Your task to perform on an android device: What is the news today? Image 0: 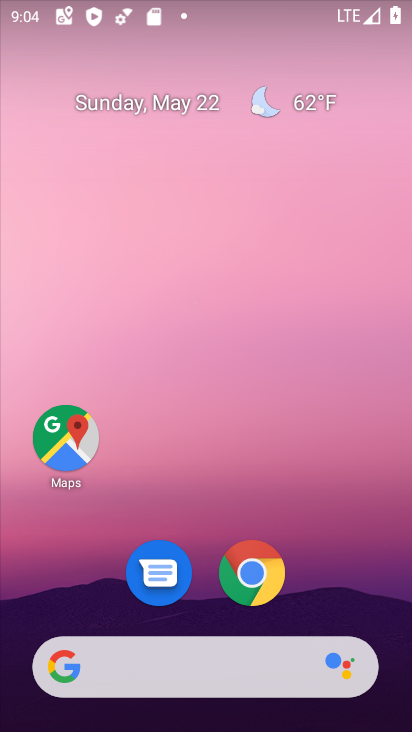
Step 0: drag from (218, 624) to (279, 26)
Your task to perform on an android device: What is the news today? Image 1: 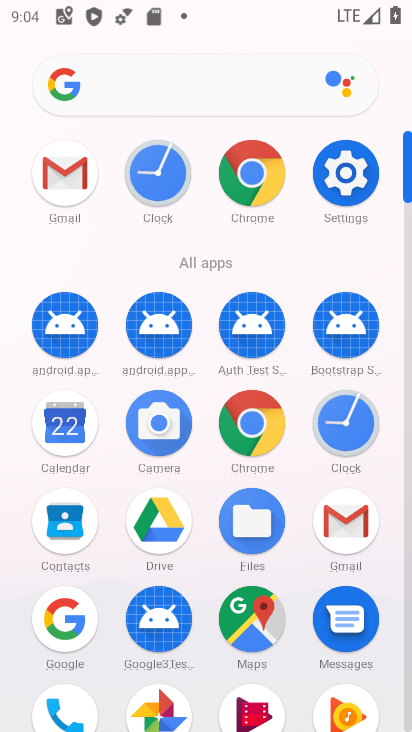
Step 1: click (268, 434)
Your task to perform on an android device: What is the news today? Image 2: 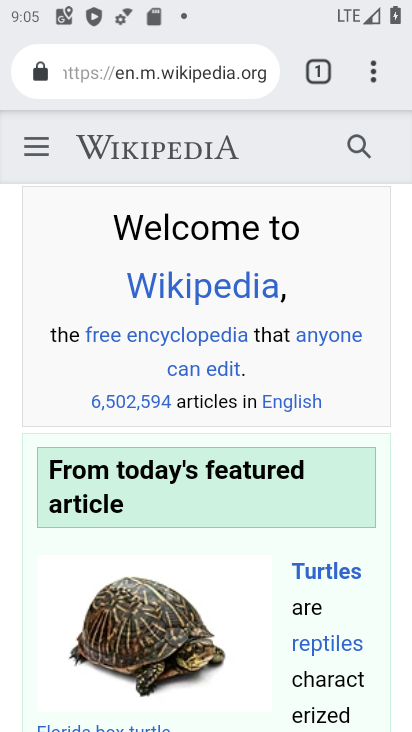
Step 2: click (245, 67)
Your task to perform on an android device: What is the news today? Image 3: 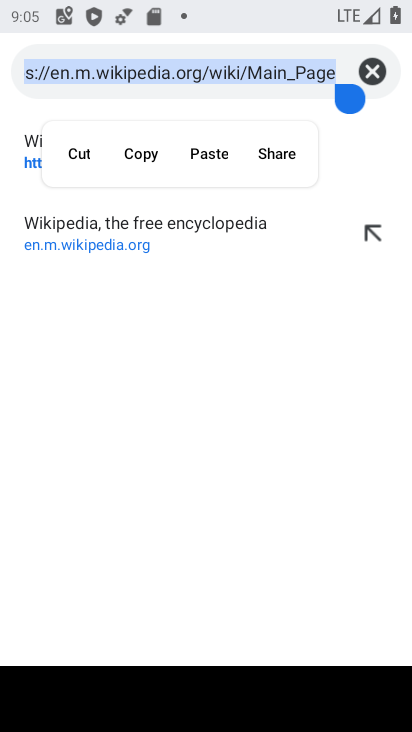
Step 3: click (373, 67)
Your task to perform on an android device: What is the news today? Image 4: 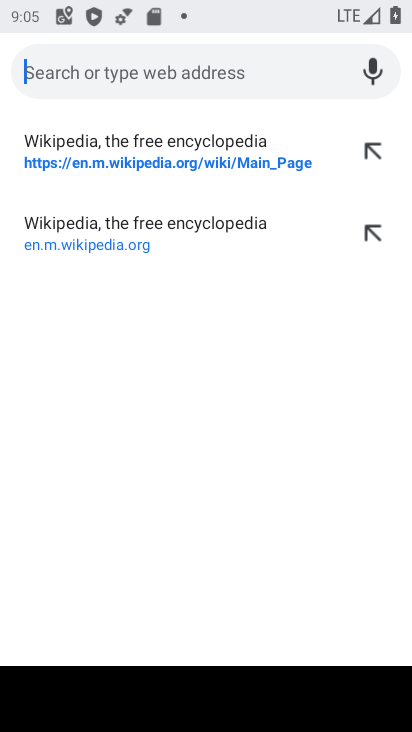
Step 4: type "news today"
Your task to perform on an android device: What is the news today? Image 5: 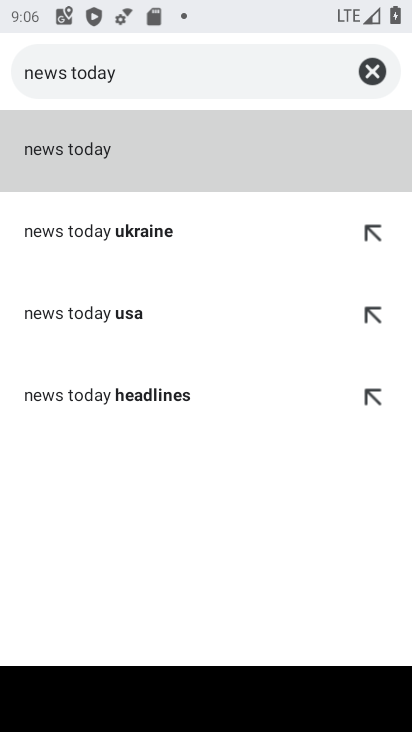
Step 5: click (103, 149)
Your task to perform on an android device: What is the news today? Image 6: 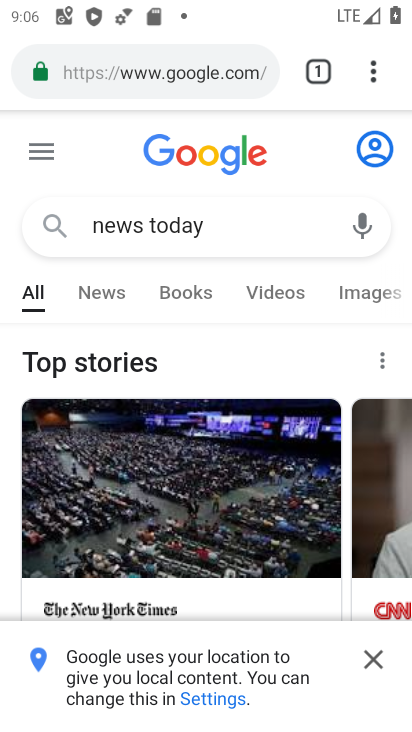
Step 6: task complete